Your task to perform on an android device: set the stopwatch Image 0: 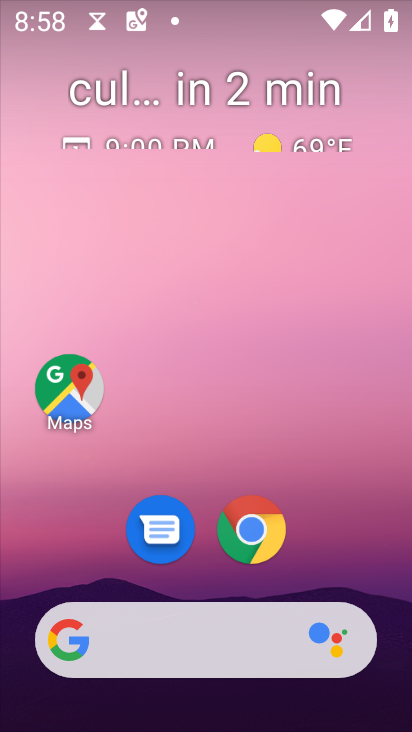
Step 0: drag from (357, 556) to (319, 48)
Your task to perform on an android device: set the stopwatch Image 1: 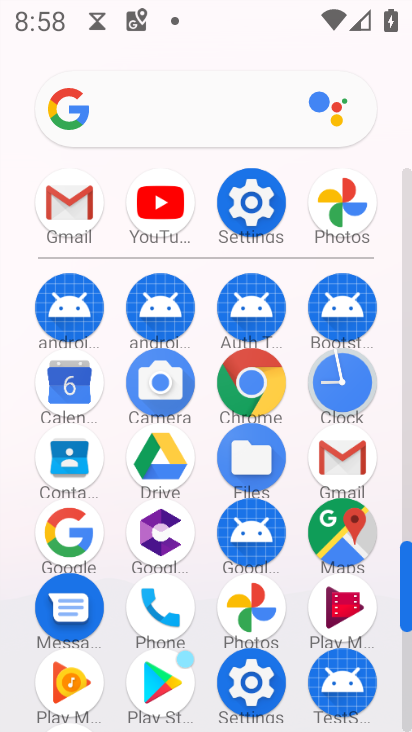
Step 1: click (363, 380)
Your task to perform on an android device: set the stopwatch Image 2: 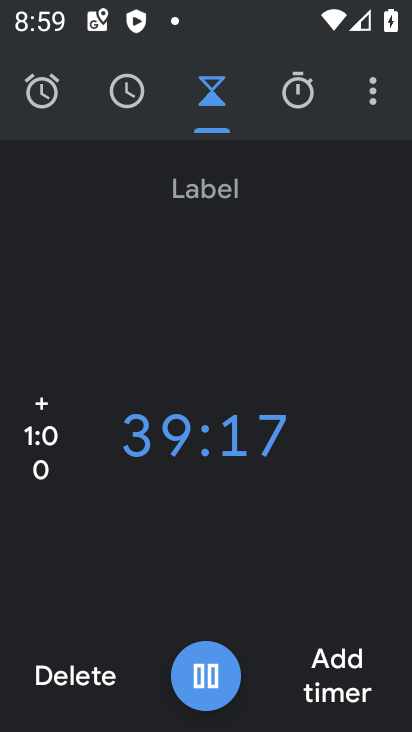
Step 2: click (290, 84)
Your task to perform on an android device: set the stopwatch Image 3: 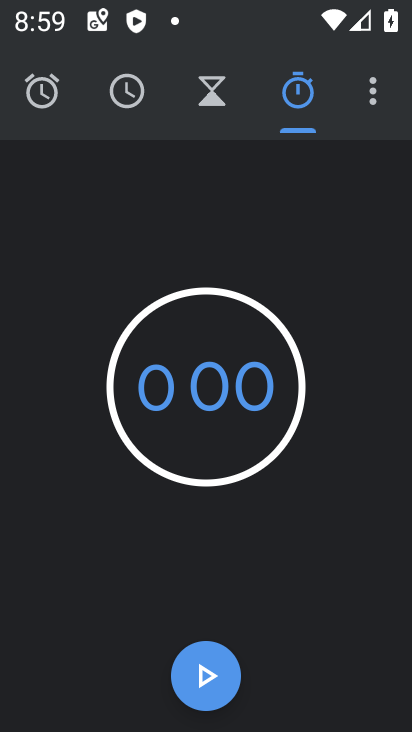
Step 3: click (169, 390)
Your task to perform on an android device: set the stopwatch Image 4: 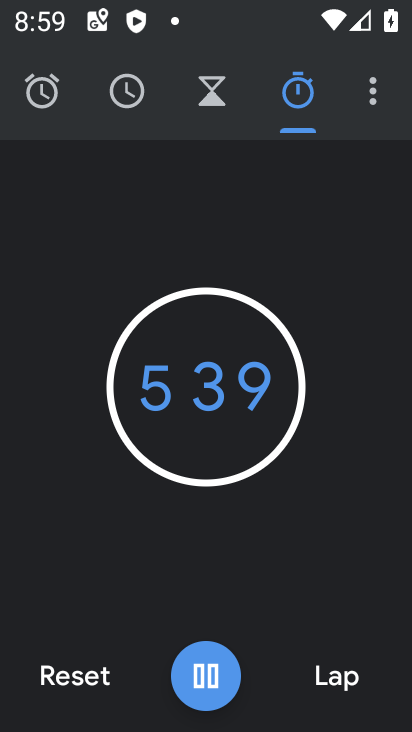
Step 4: task complete